Your task to perform on an android device: check the backup settings in the google photos Image 0: 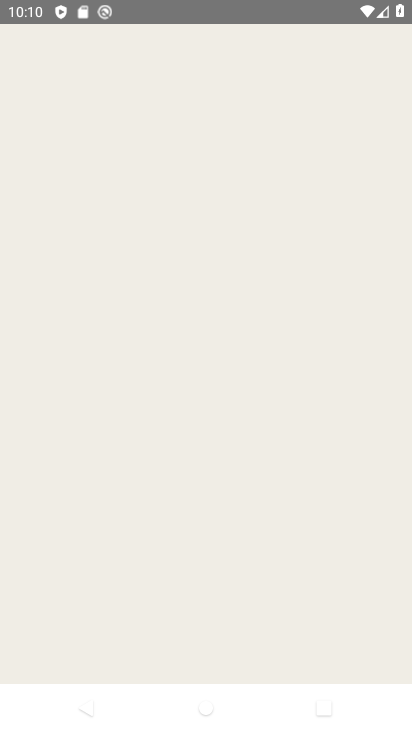
Step 0: click (239, 561)
Your task to perform on an android device: check the backup settings in the google photos Image 1: 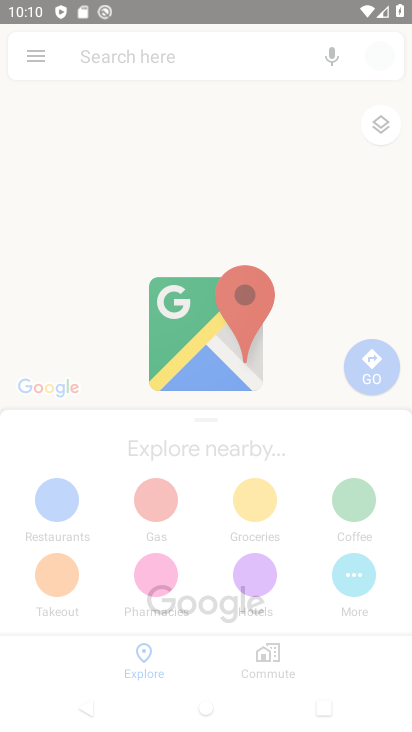
Step 1: drag from (291, 3) to (253, 417)
Your task to perform on an android device: check the backup settings in the google photos Image 2: 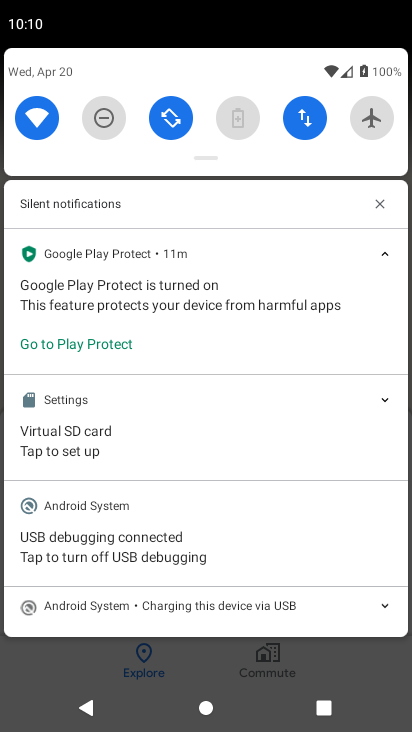
Step 2: press back button
Your task to perform on an android device: check the backup settings in the google photos Image 3: 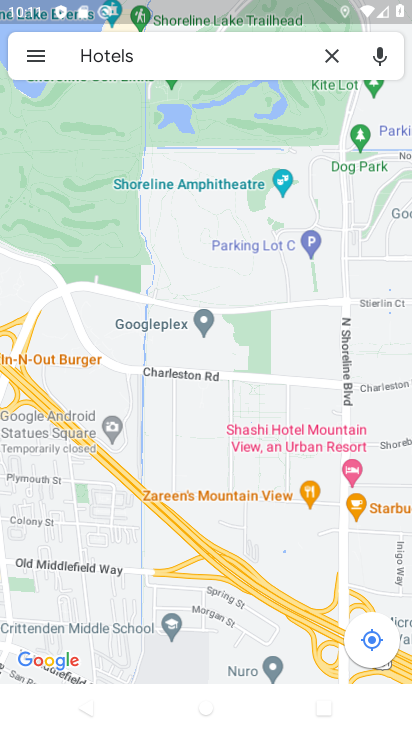
Step 3: press back button
Your task to perform on an android device: check the backup settings in the google photos Image 4: 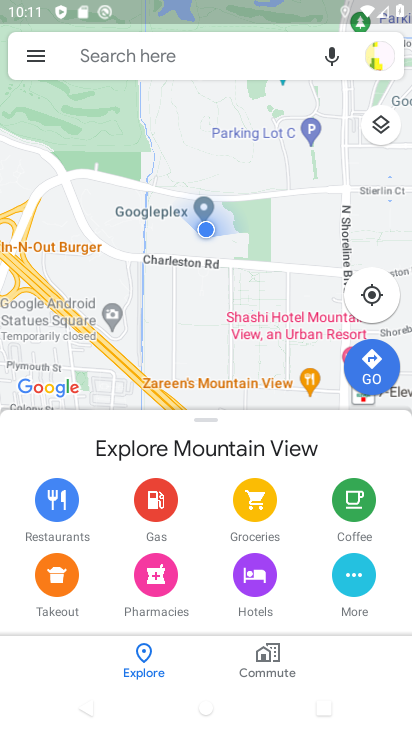
Step 4: press back button
Your task to perform on an android device: check the backup settings in the google photos Image 5: 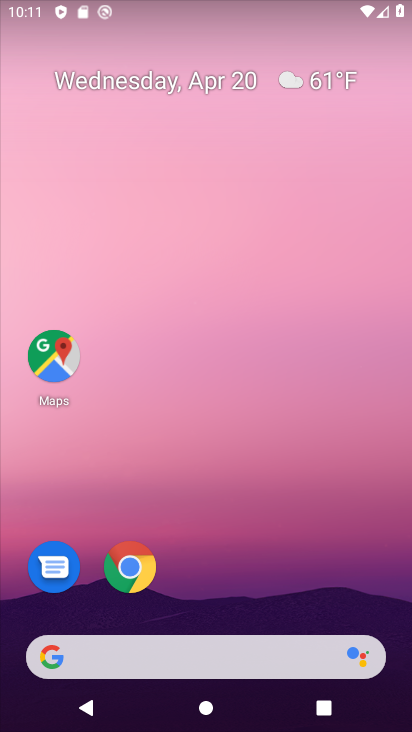
Step 5: drag from (256, 559) to (356, 1)
Your task to perform on an android device: check the backup settings in the google photos Image 6: 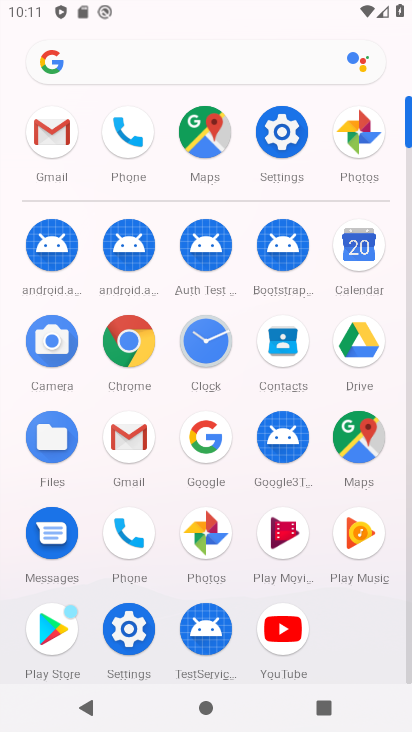
Step 6: click (204, 542)
Your task to perform on an android device: check the backup settings in the google photos Image 7: 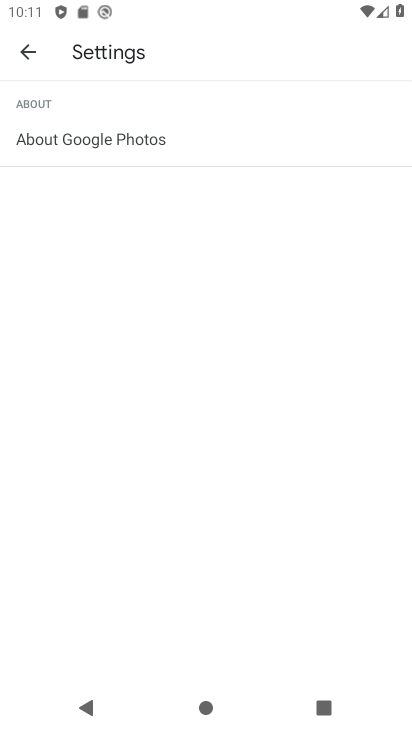
Step 7: click (25, 43)
Your task to perform on an android device: check the backup settings in the google photos Image 8: 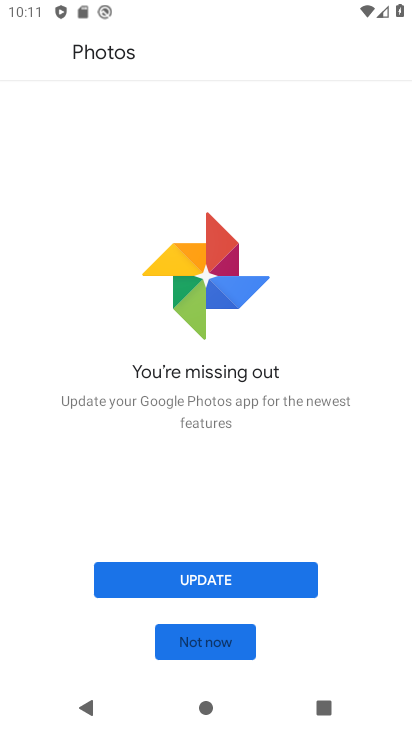
Step 8: click (202, 643)
Your task to perform on an android device: check the backup settings in the google photos Image 9: 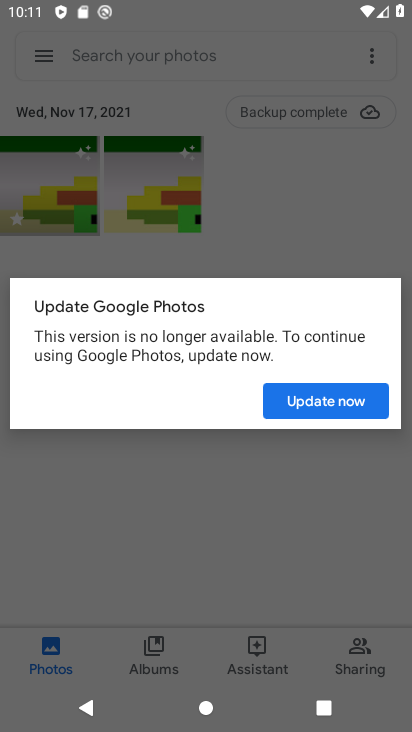
Step 9: click (321, 399)
Your task to perform on an android device: check the backup settings in the google photos Image 10: 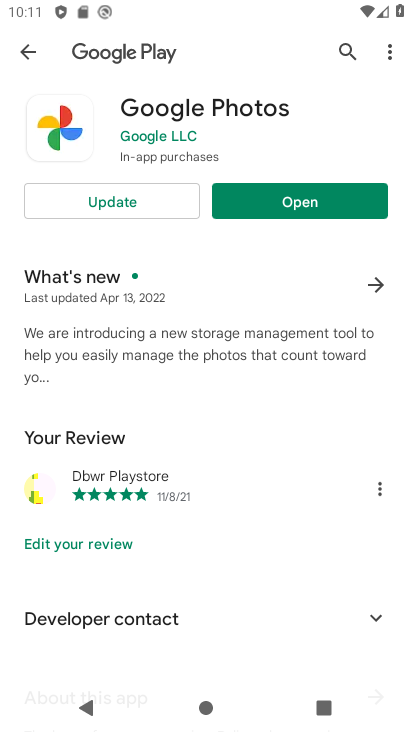
Step 10: click (287, 201)
Your task to perform on an android device: check the backup settings in the google photos Image 11: 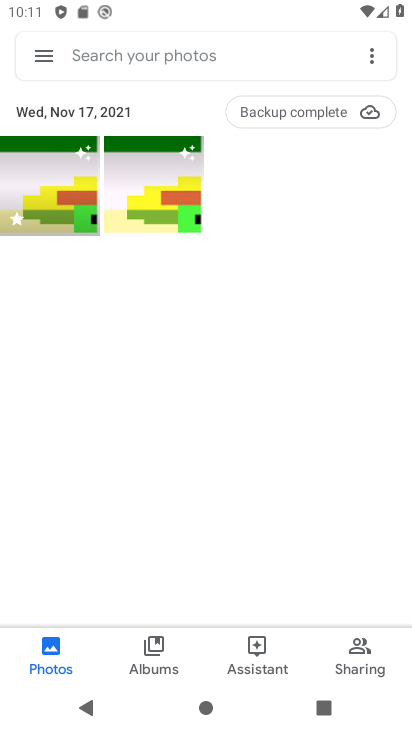
Step 11: click (41, 56)
Your task to perform on an android device: check the backup settings in the google photos Image 12: 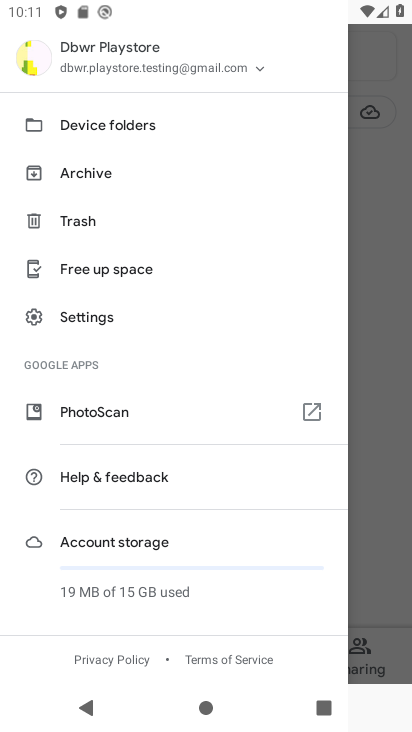
Step 12: click (95, 317)
Your task to perform on an android device: check the backup settings in the google photos Image 13: 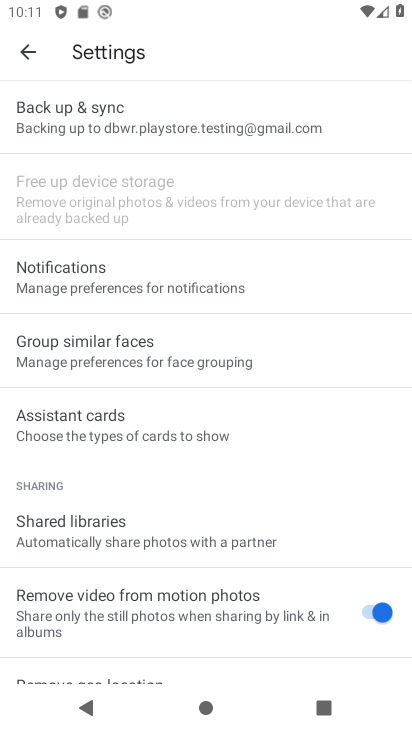
Step 13: click (108, 123)
Your task to perform on an android device: check the backup settings in the google photos Image 14: 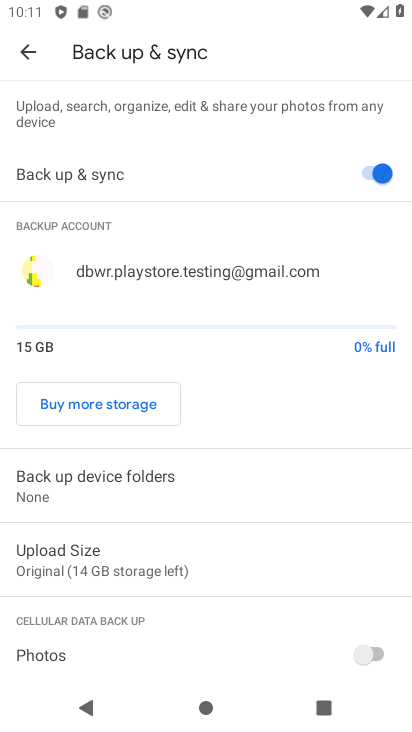
Step 14: task complete